Your task to perform on an android device: Open Google Chrome Image 0: 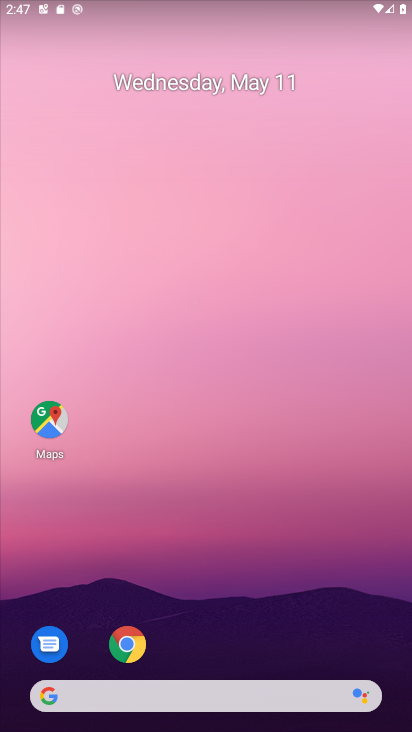
Step 0: click (136, 639)
Your task to perform on an android device: Open Google Chrome Image 1: 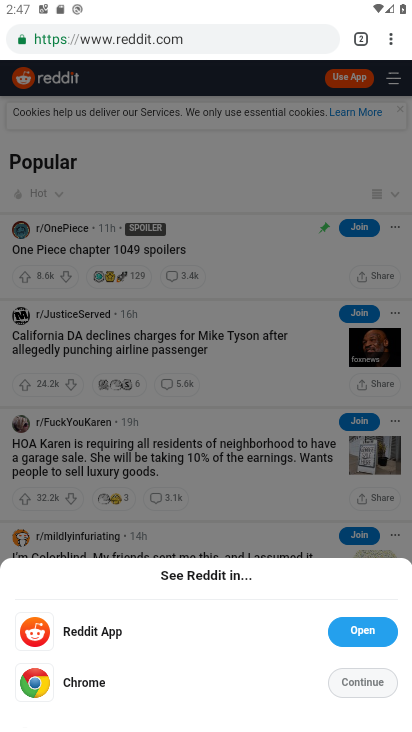
Step 1: click (369, 683)
Your task to perform on an android device: Open Google Chrome Image 2: 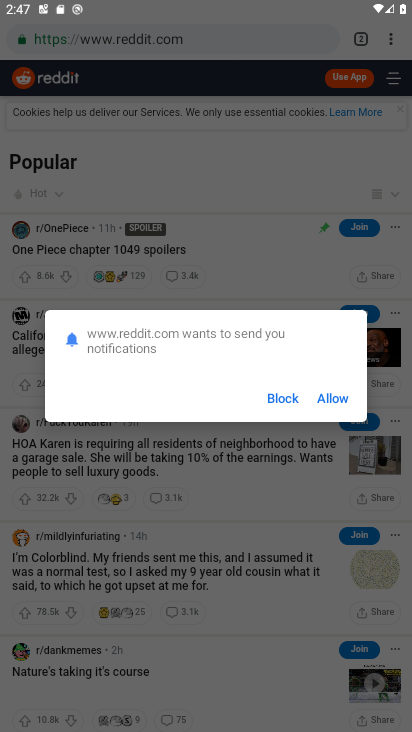
Step 2: click (335, 405)
Your task to perform on an android device: Open Google Chrome Image 3: 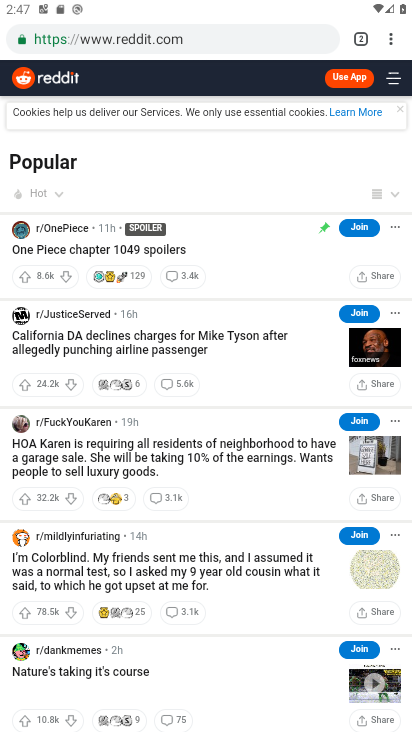
Step 3: click (354, 49)
Your task to perform on an android device: Open Google Chrome Image 4: 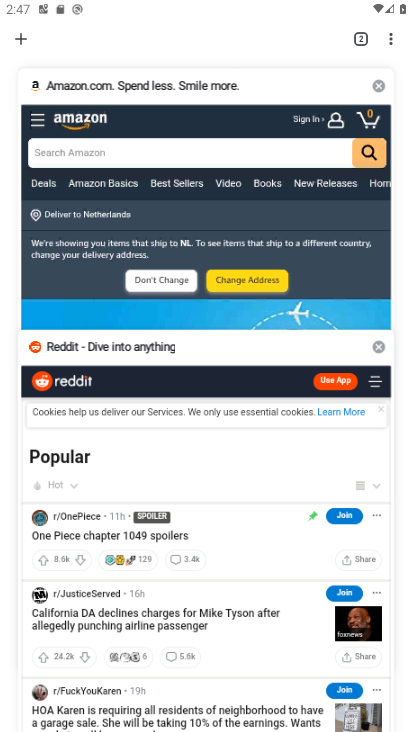
Step 4: task complete